Your task to perform on an android device: install app "Pandora - Music & Podcasts" Image 0: 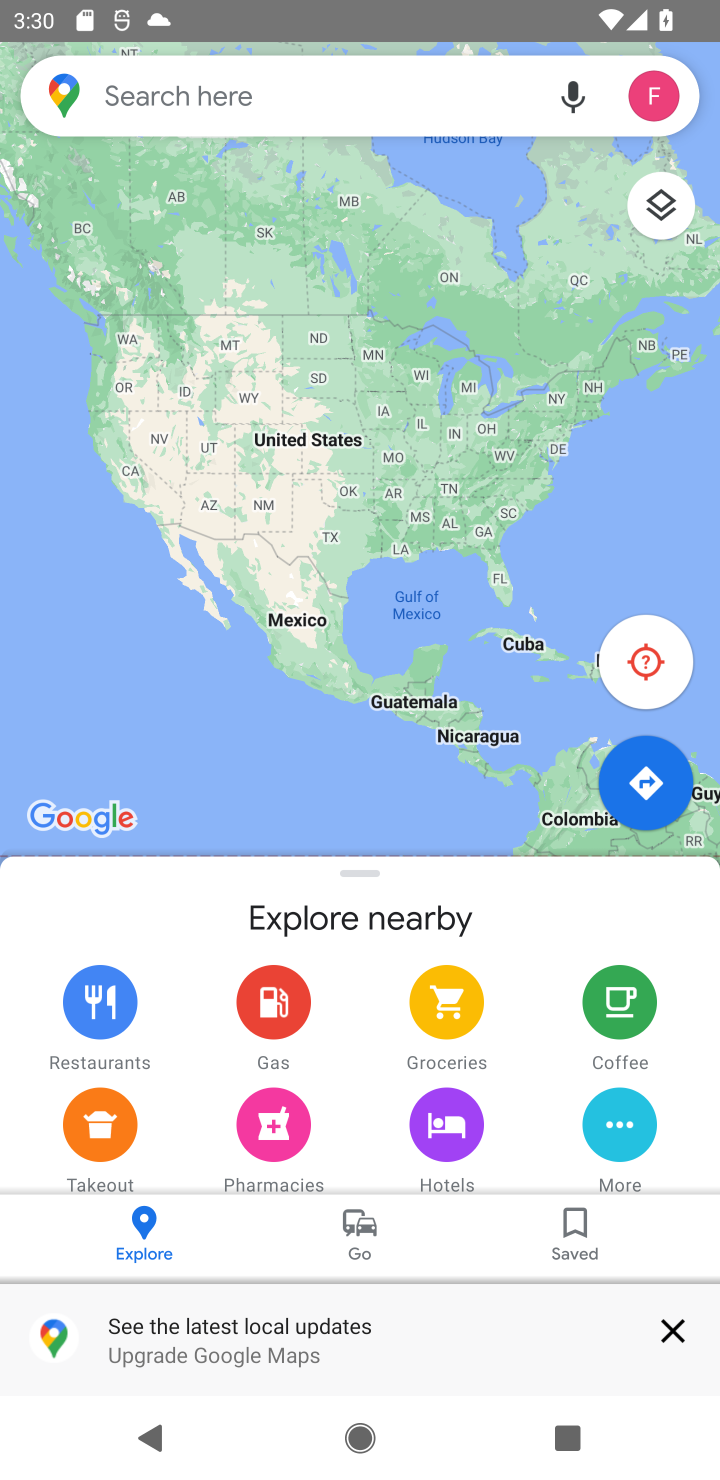
Step 0: press home button
Your task to perform on an android device: install app "Pandora - Music & Podcasts" Image 1: 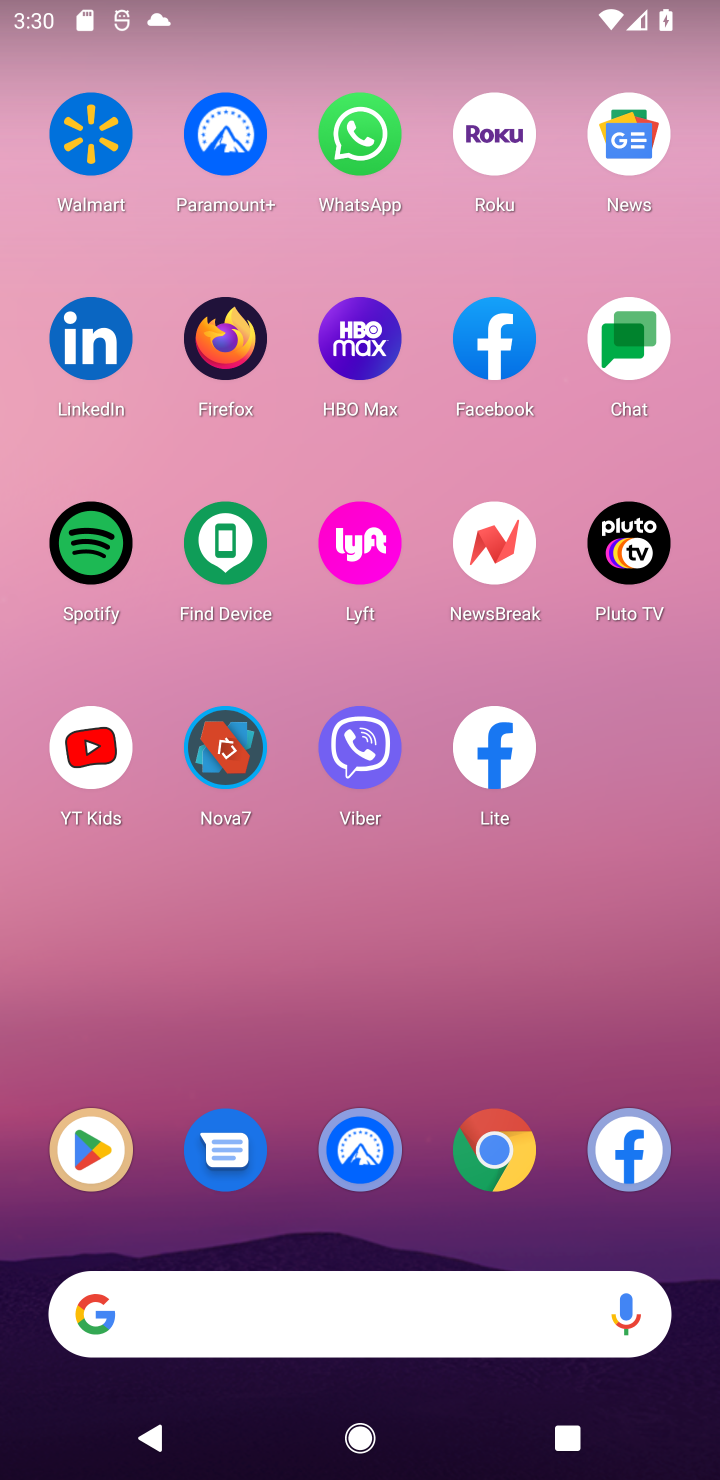
Step 1: click (70, 1136)
Your task to perform on an android device: install app "Pandora - Music & Podcasts" Image 2: 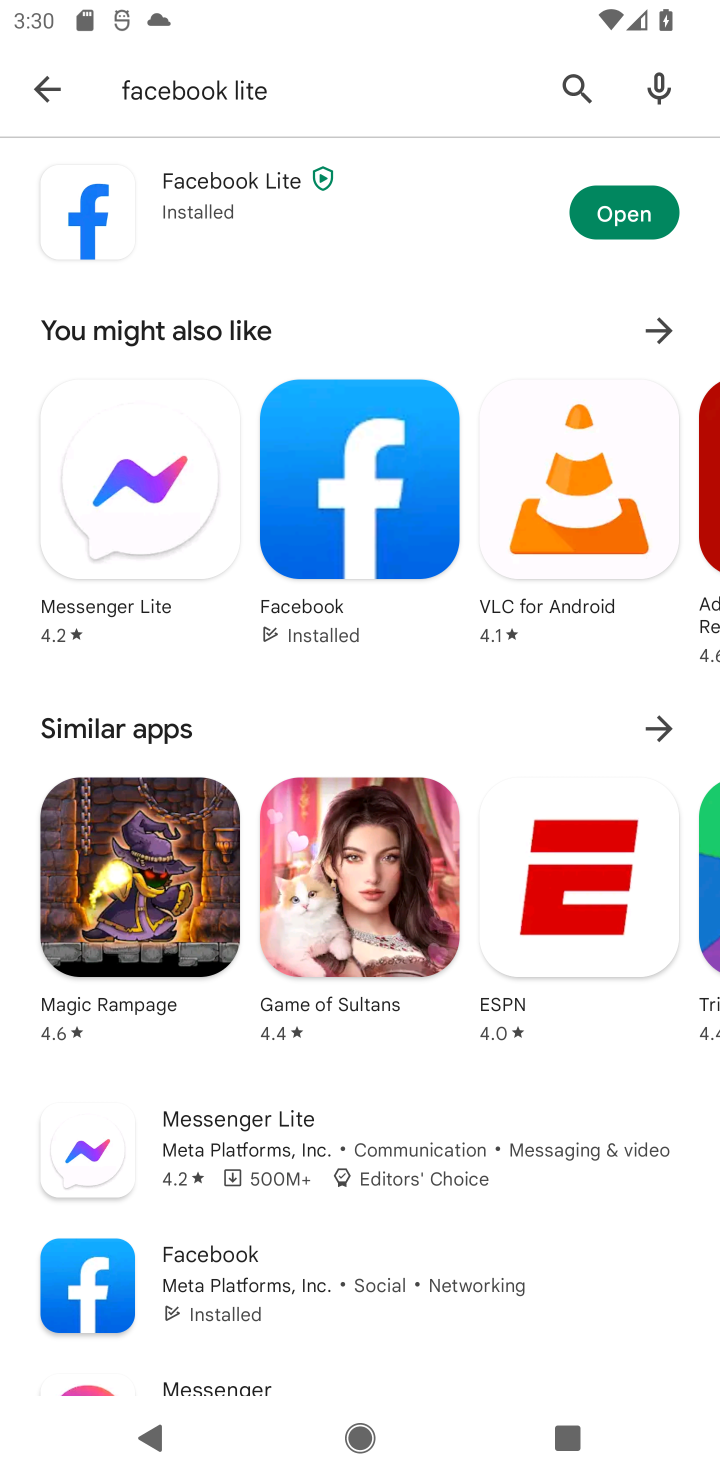
Step 2: click (567, 89)
Your task to perform on an android device: install app "Pandora - Music & Podcasts" Image 3: 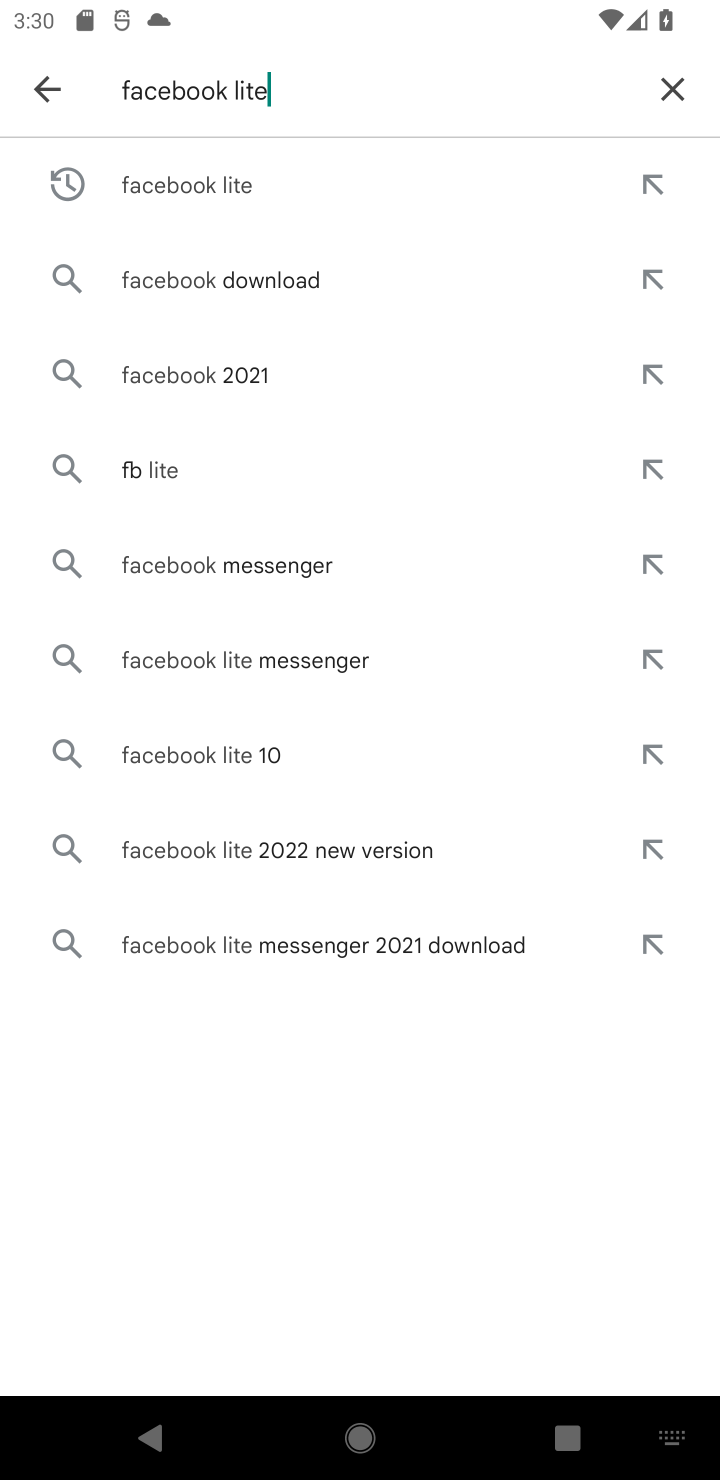
Step 3: click (690, 87)
Your task to perform on an android device: install app "Pandora - Music & Podcasts" Image 4: 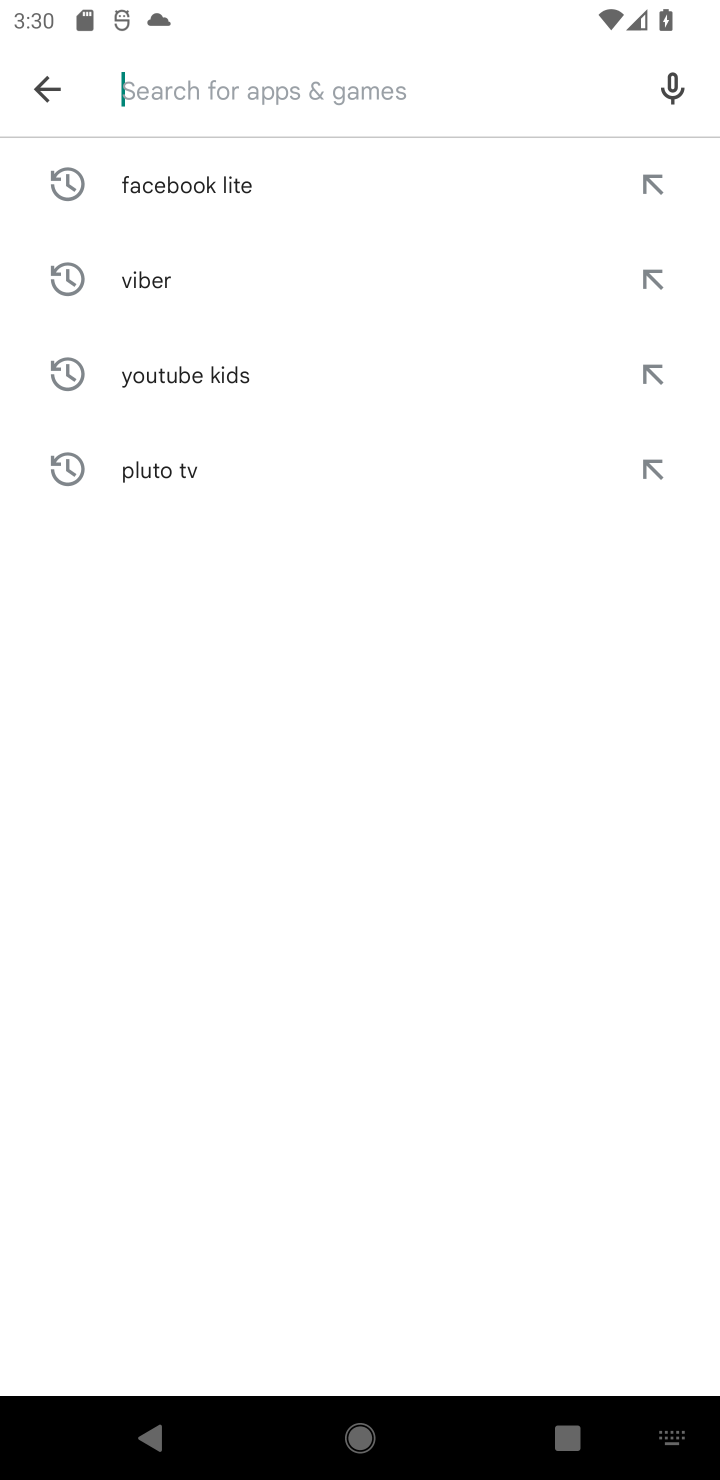
Step 4: type "pandora"
Your task to perform on an android device: install app "Pandora - Music & Podcasts" Image 5: 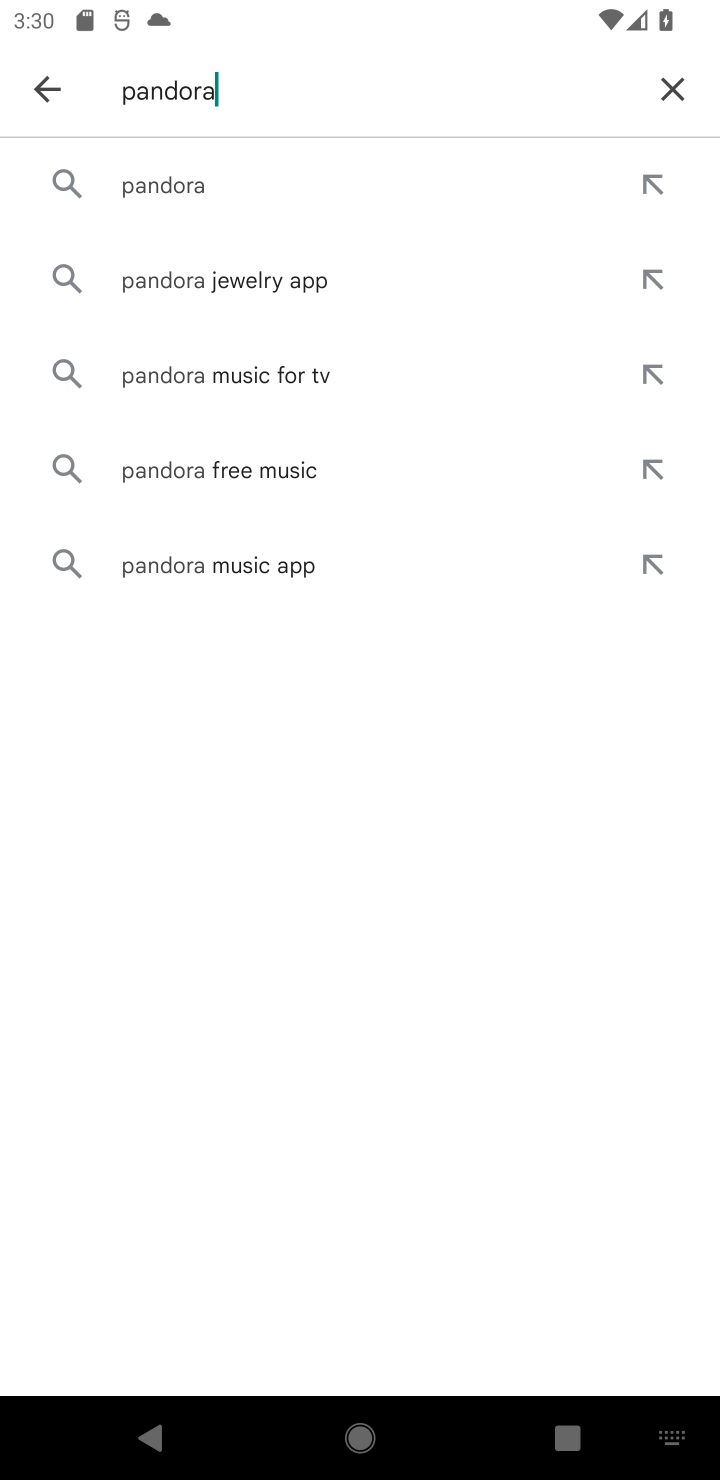
Step 5: click (225, 200)
Your task to perform on an android device: install app "Pandora - Music & Podcasts" Image 6: 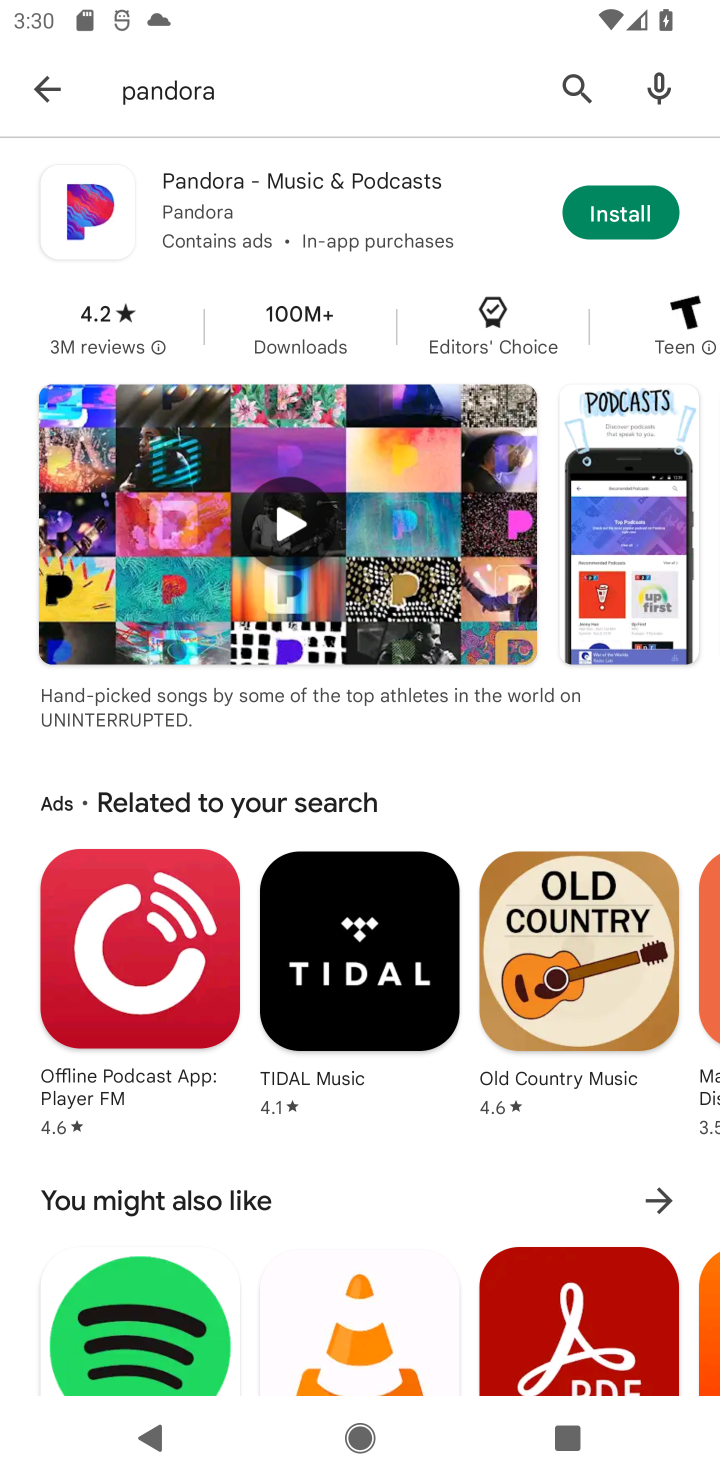
Step 6: click (608, 207)
Your task to perform on an android device: install app "Pandora - Music & Podcasts" Image 7: 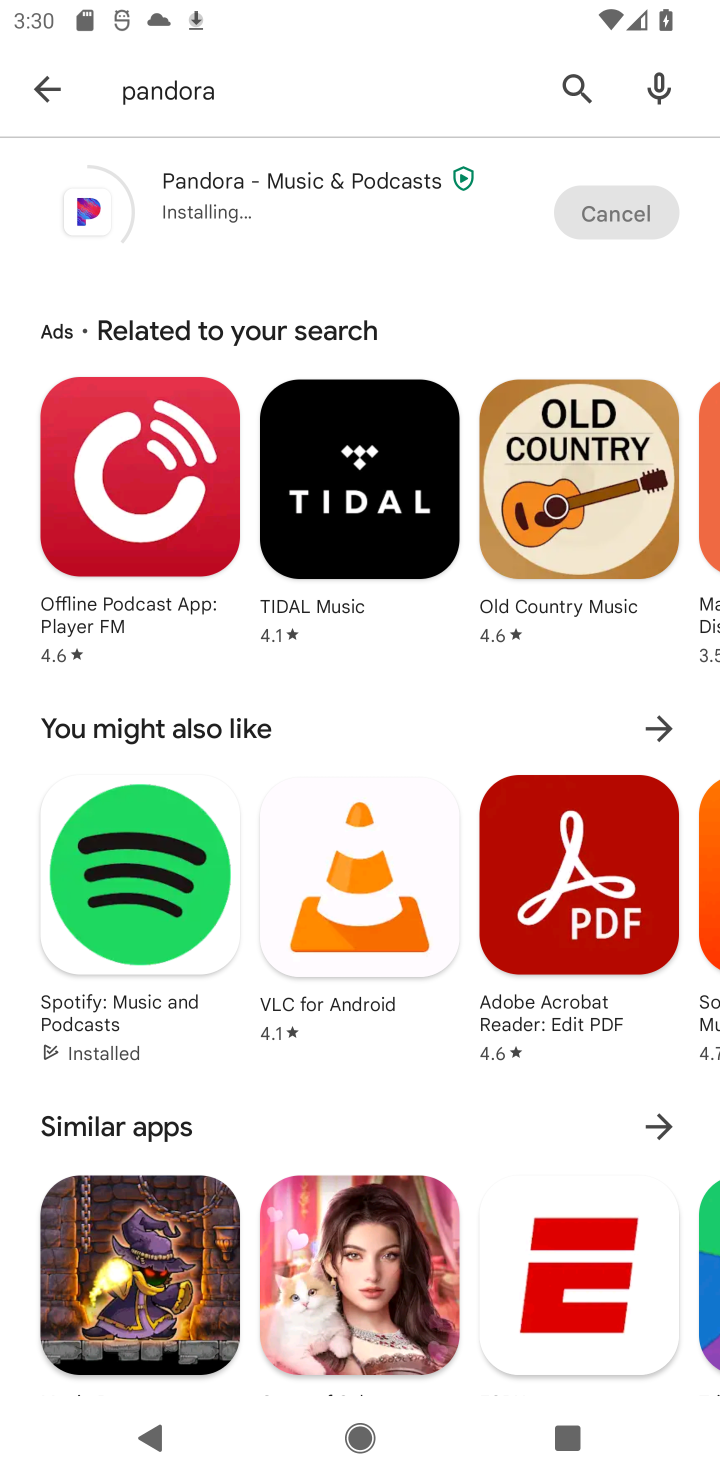
Step 7: task complete